Your task to perform on an android device: Add duracell triple a to the cart on amazon, then select checkout. Image 0: 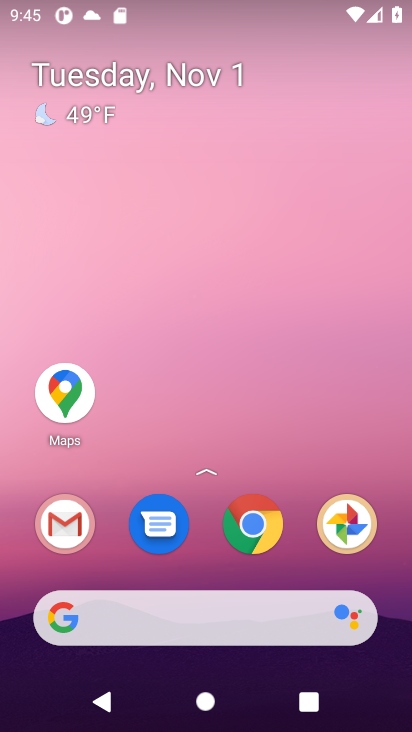
Step 0: press home button
Your task to perform on an android device: Add duracell triple a to the cart on amazon, then select checkout. Image 1: 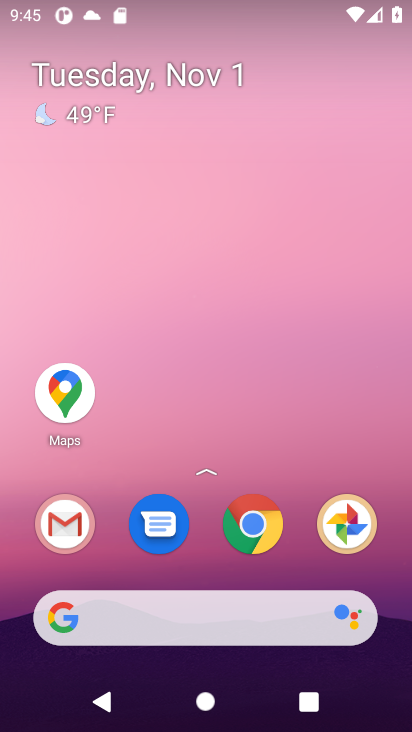
Step 1: click (101, 613)
Your task to perform on an android device: Add duracell triple a to the cart on amazon, then select checkout. Image 2: 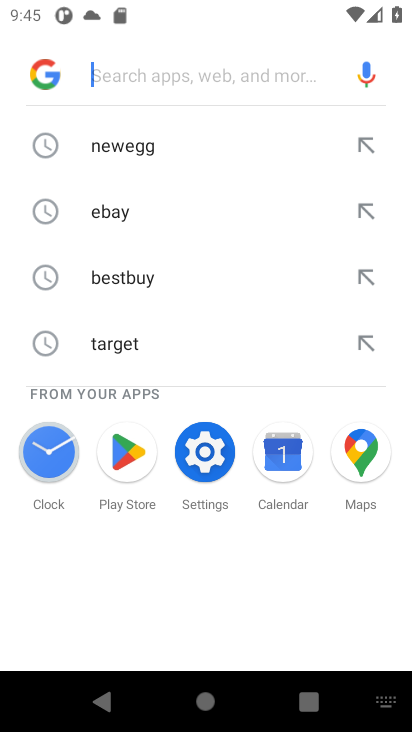
Step 2: type " amazon"
Your task to perform on an android device: Add duracell triple a to the cart on amazon, then select checkout. Image 3: 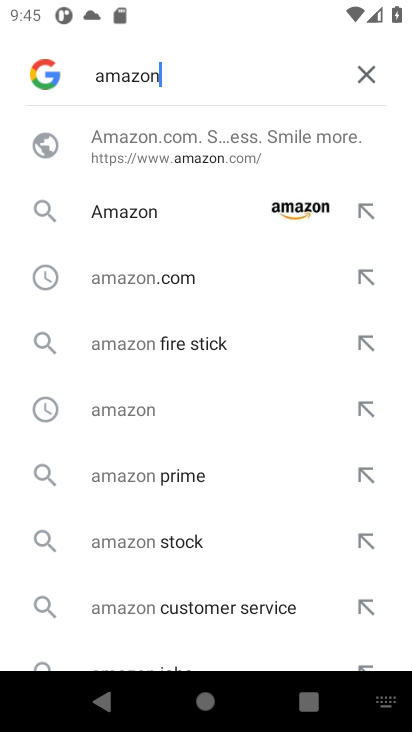
Step 3: press enter
Your task to perform on an android device: Add duracell triple a to the cart on amazon, then select checkout. Image 4: 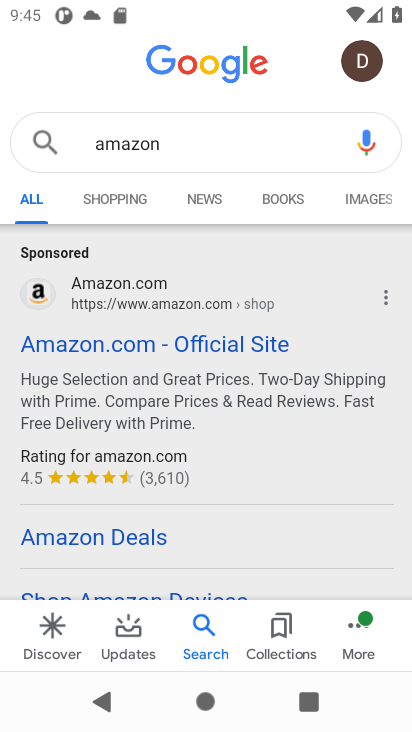
Step 4: click (147, 347)
Your task to perform on an android device: Add duracell triple a to the cart on amazon, then select checkout. Image 5: 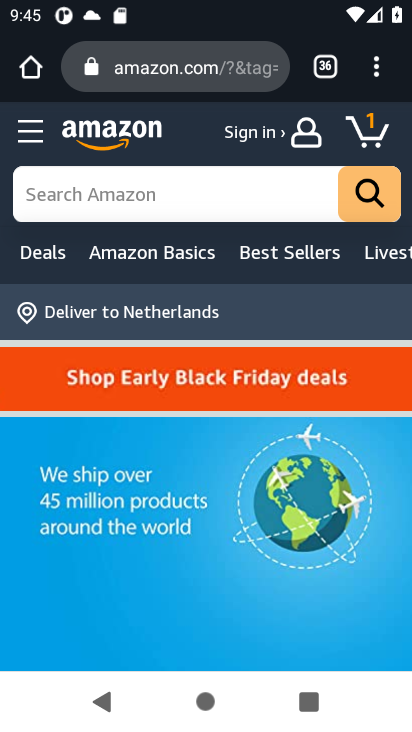
Step 5: click (95, 189)
Your task to perform on an android device: Add duracell triple a to the cart on amazon, then select checkout. Image 6: 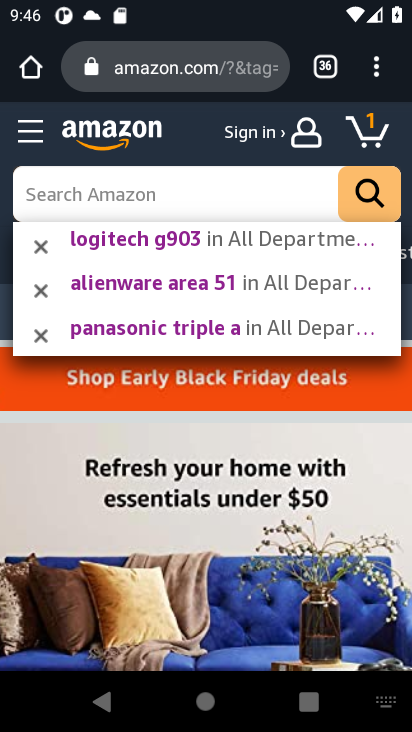
Step 6: type "duracell triple a"
Your task to perform on an android device: Add duracell triple a to the cart on amazon, then select checkout. Image 7: 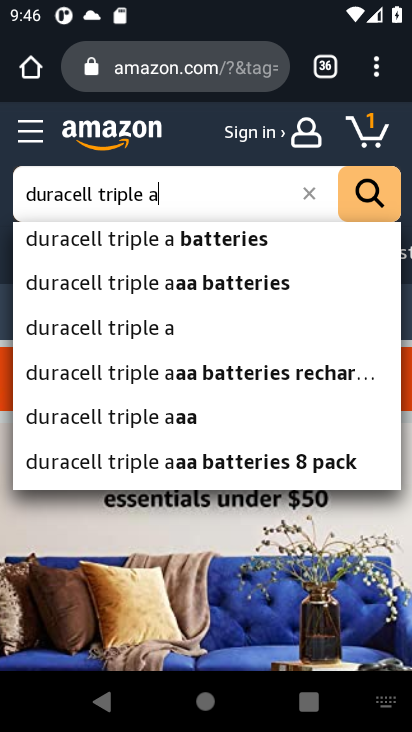
Step 7: press enter
Your task to perform on an android device: Add duracell triple a to the cart on amazon, then select checkout. Image 8: 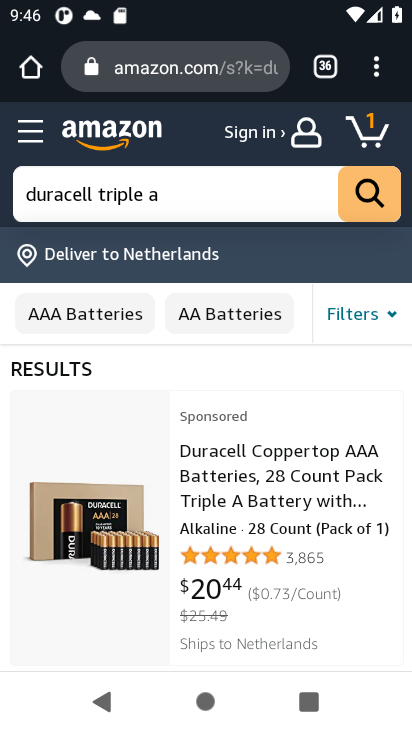
Step 8: click (228, 490)
Your task to perform on an android device: Add duracell triple a to the cart on amazon, then select checkout. Image 9: 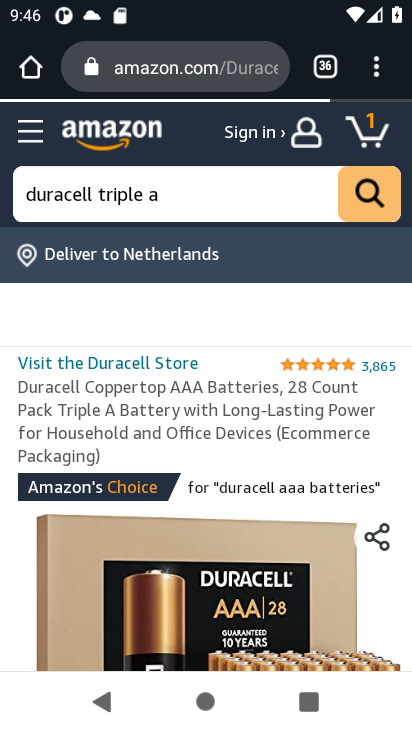
Step 9: drag from (239, 594) to (238, 339)
Your task to perform on an android device: Add duracell triple a to the cart on amazon, then select checkout. Image 10: 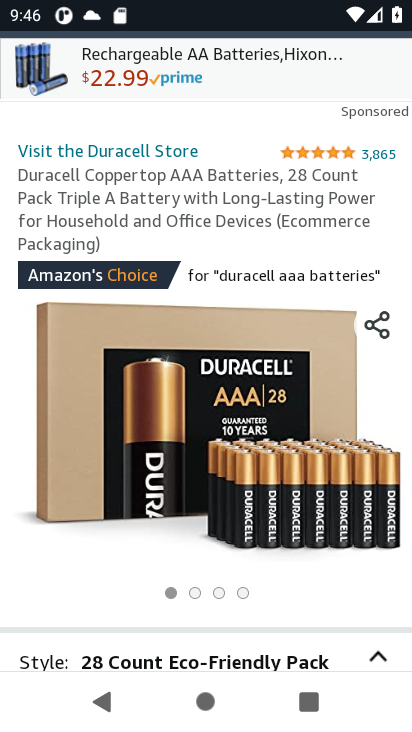
Step 10: drag from (168, 610) to (211, 259)
Your task to perform on an android device: Add duracell triple a to the cart on amazon, then select checkout. Image 11: 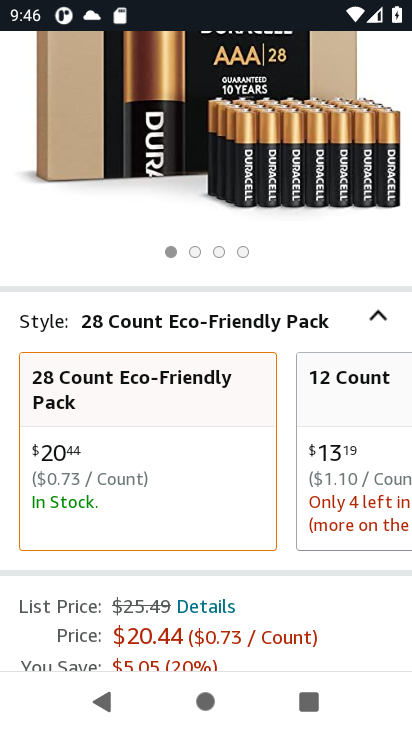
Step 11: drag from (239, 629) to (259, 236)
Your task to perform on an android device: Add duracell triple a to the cart on amazon, then select checkout. Image 12: 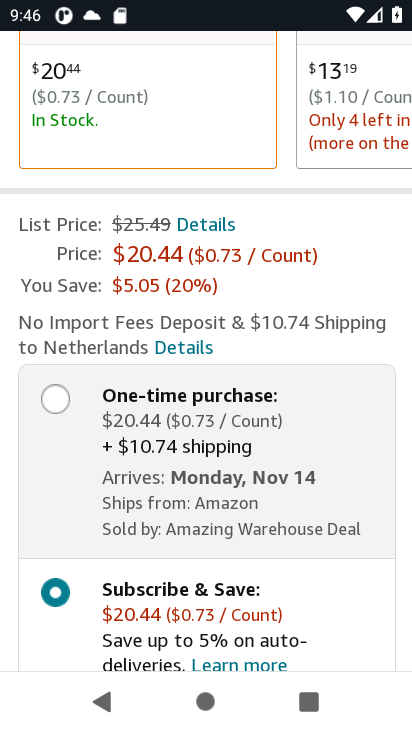
Step 12: drag from (238, 535) to (236, 176)
Your task to perform on an android device: Add duracell triple a to the cart on amazon, then select checkout. Image 13: 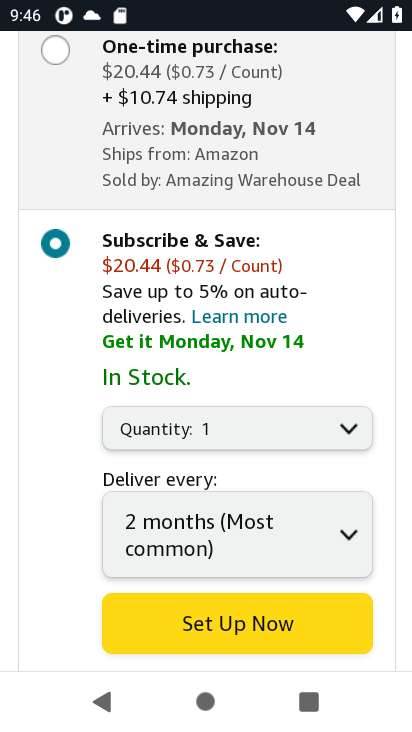
Step 13: drag from (52, 529) to (91, 198)
Your task to perform on an android device: Add duracell triple a to the cart on amazon, then select checkout. Image 14: 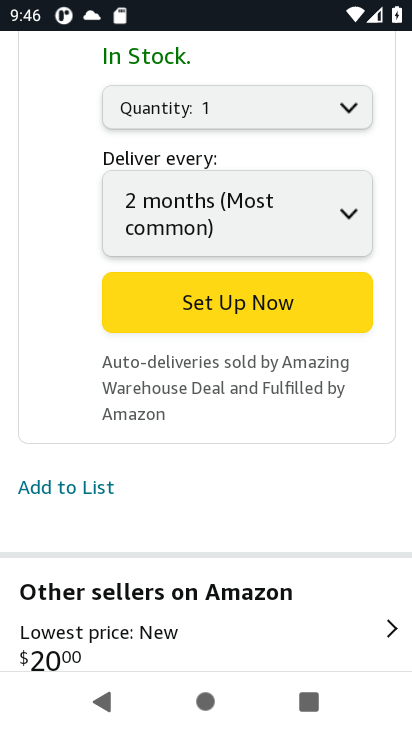
Step 14: click (74, 491)
Your task to perform on an android device: Add duracell triple a to the cart on amazon, then select checkout. Image 15: 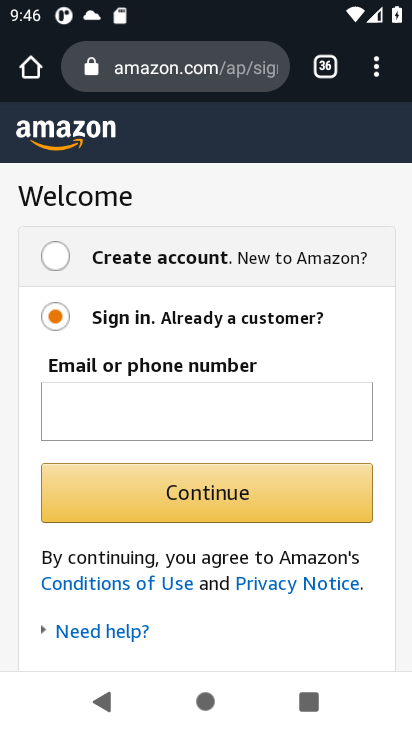
Step 15: task complete